Your task to perform on an android device: Set the phone to "Do not disturb". Image 0: 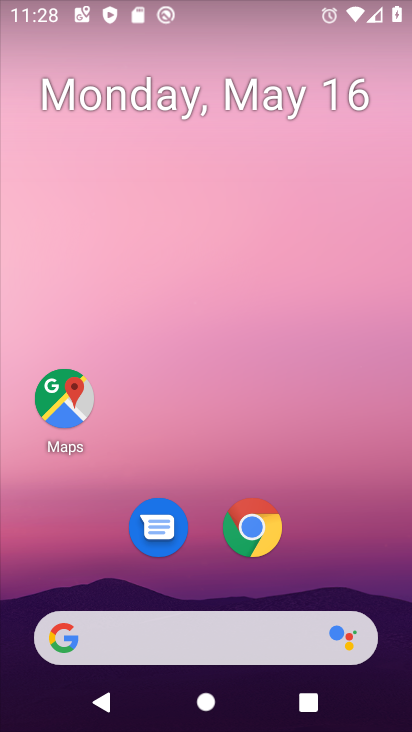
Step 0: drag from (355, 593) to (356, 24)
Your task to perform on an android device: Set the phone to "Do not disturb". Image 1: 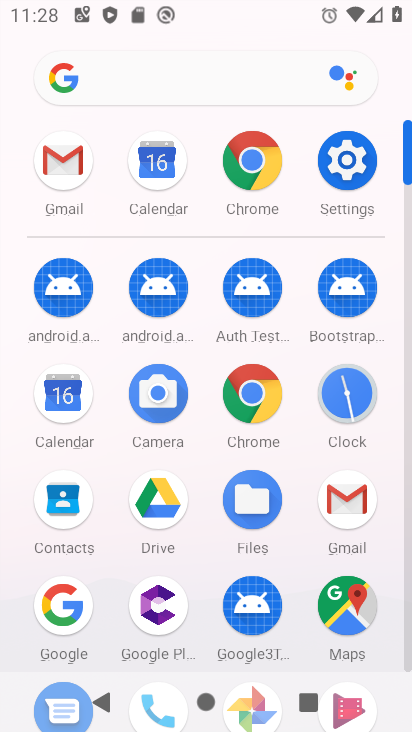
Step 1: click (346, 162)
Your task to perform on an android device: Set the phone to "Do not disturb". Image 2: 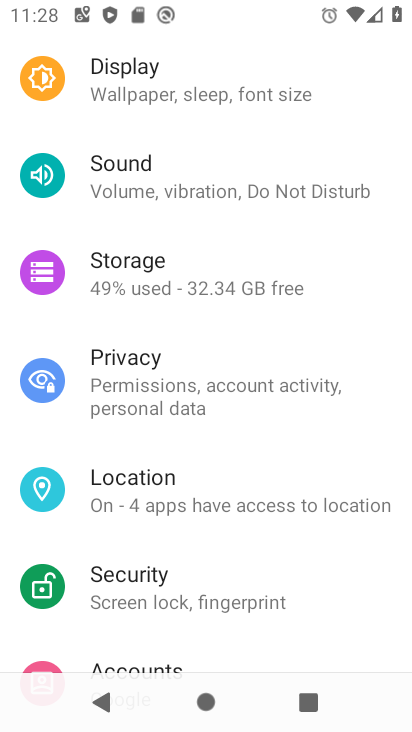
Step 2: click (160, 194)
Your task to perform on an android device: Set the phone to "Do not disturb". Image 3: 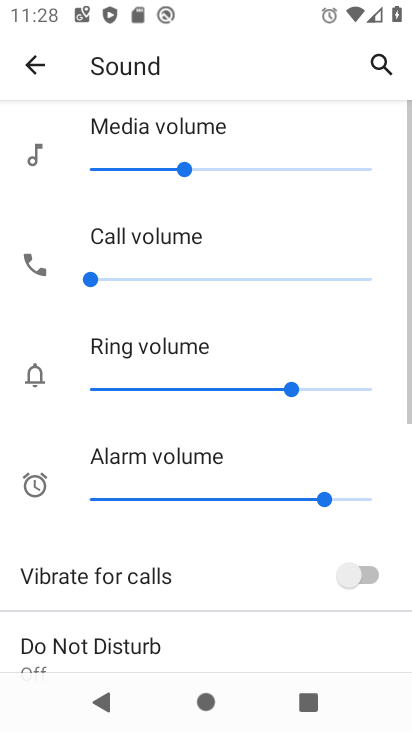
Step 3: drag from (222, 578) to (213, 304)
Your task to perform on an android device: Set the phone to "Do not disturb". Image 4: 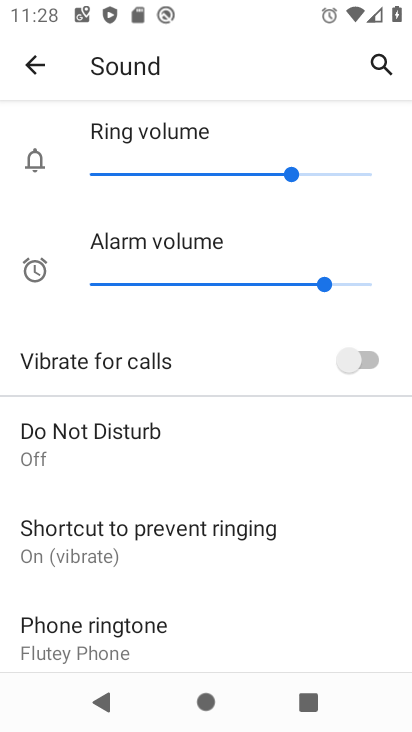
Step 4: click (103, 423)
Your task to perform on an android device: Set the phone to "Do not disturb". Image 5: 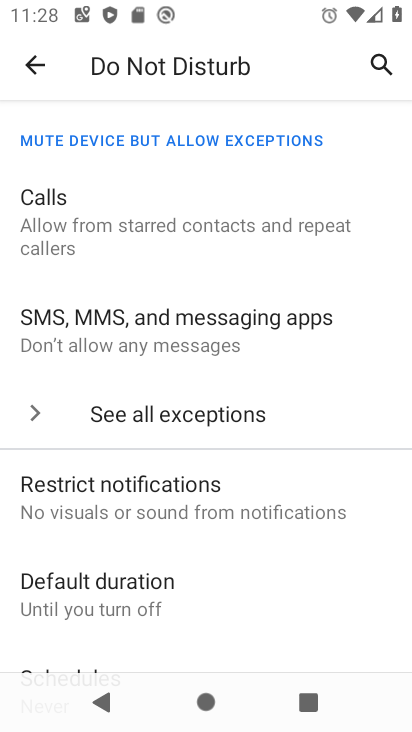
Step 5: drag from (157, 559) to (192, 52)
Your task to perform on an android device: Set the phone to "Do not disturb". Image 6: 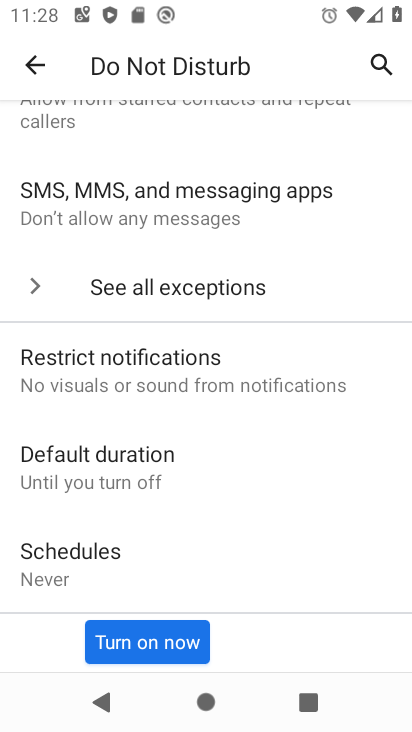
Step 6: click (144, 642)
Your task to perform on an android device: Set the phone to "Do not disturb". Image 7: 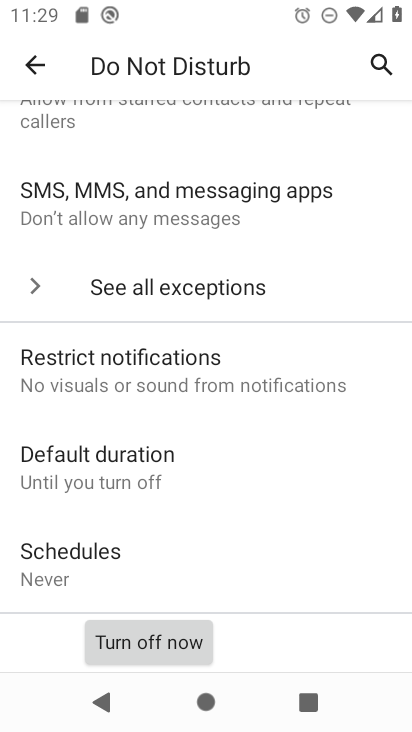
Step 7: task complete